Your task to perform on an android device: turn pop-ups off in chrome Image 0: 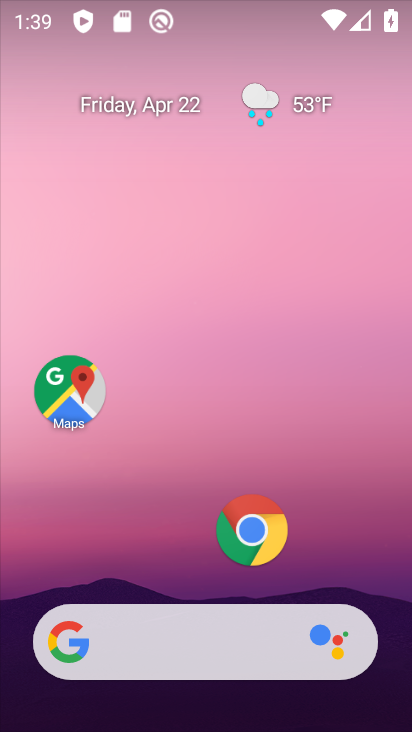
Step 0: drag from (230, 648) to (269, 220)
Your task to perform on an android device: turn pop-ups off in chrome Image 1: 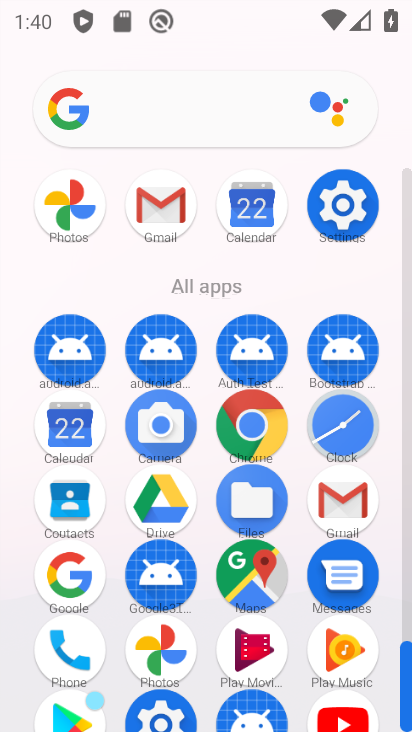
Step 1: click (244, 419)
Your task to perform on an android device: turn pop-ups off in chrome Image 2: 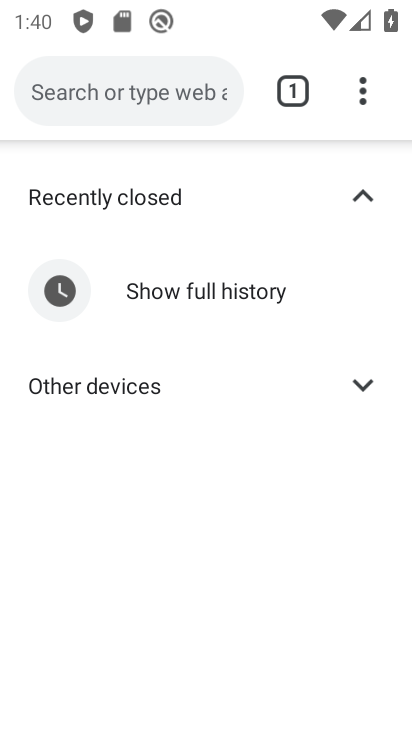
Step 2: click (369, 88)
Your task to perform on an android device: turn pop-ups off in chrome Image 3: 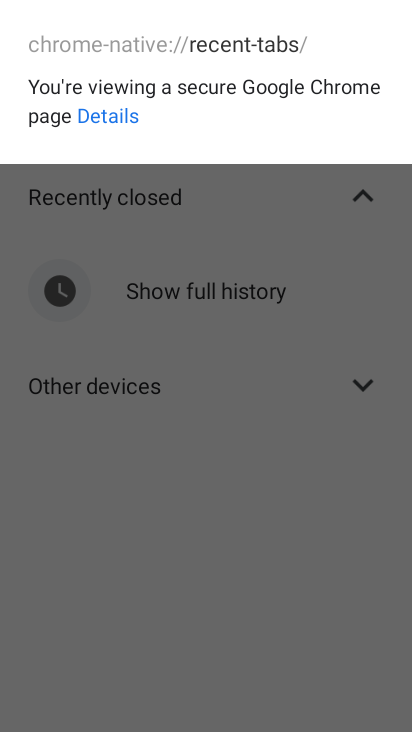
Step 3: click (246, 628)
Your task to perform on an android device: turn pop-ups off in chrome Image 4: 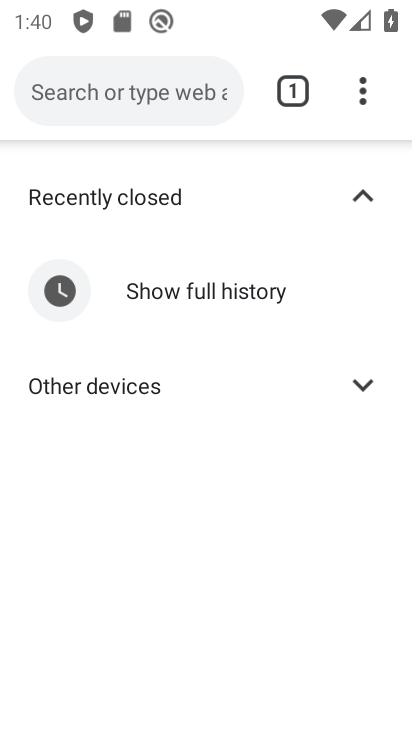
Step 4: drag from (367, 89) to (112, 555)
Your task to perform on an android device: turn pop-ups off in chrome Image 5: 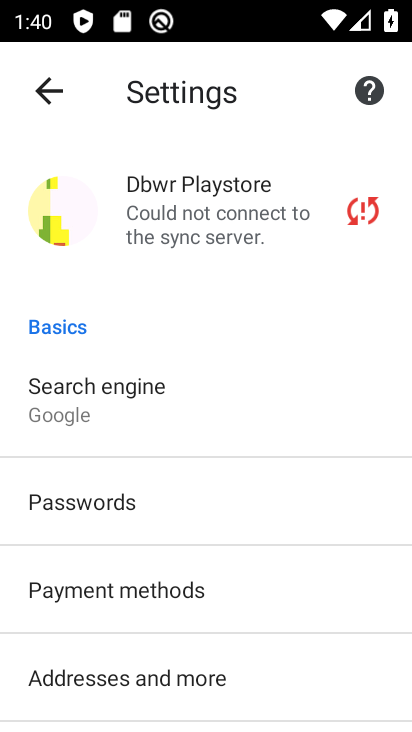
Step 5: drag from (162, 642) to (376, 114)
Your task to perform on an android device: turn pop-ups off in chrome Image 6: 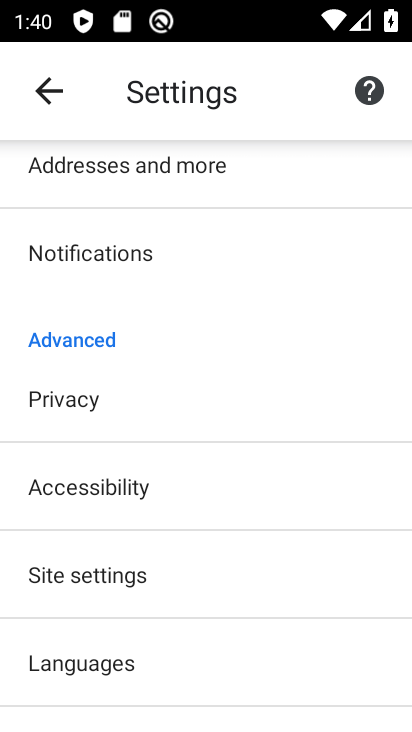
Step 6: click (162, 583)
Your task to perform on an android device: turn pop-ups off in chrome Image 7: 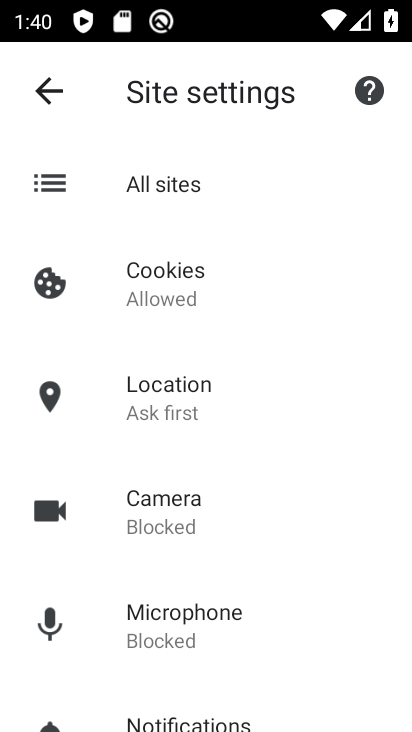
Step 7: drag from (187, 677) to (302, 292)
Your task to perform on an android device: turn pop-ups off in chrome Image 8: 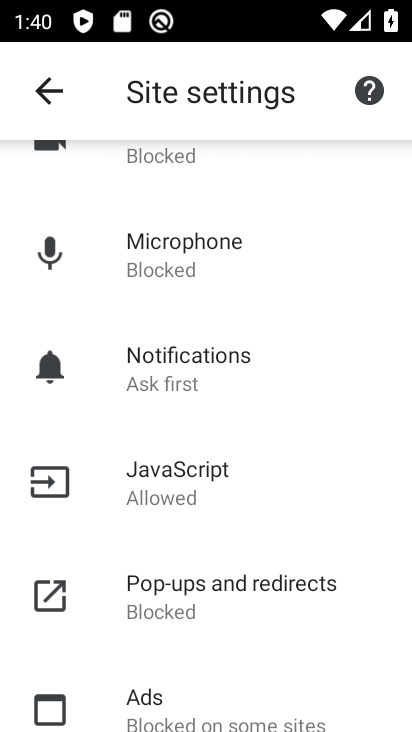
Step 8: click (196, 606)
Your task to perform on an android device: turn pop-ups off in chrome Image 9: 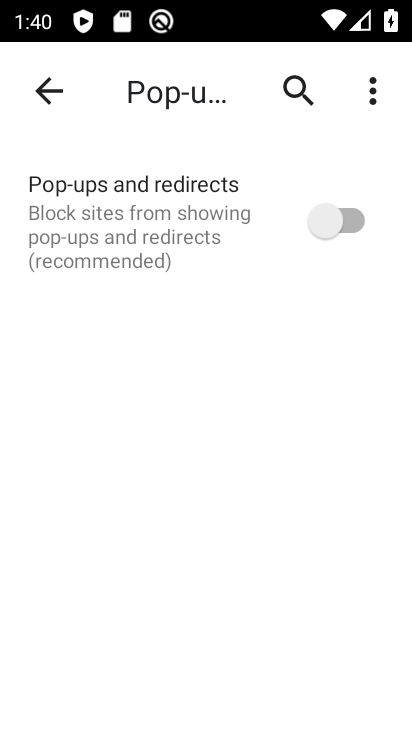
Step 9: task complete